Your task to perform on an android device: add a label to a message in the gmail app Image 0: 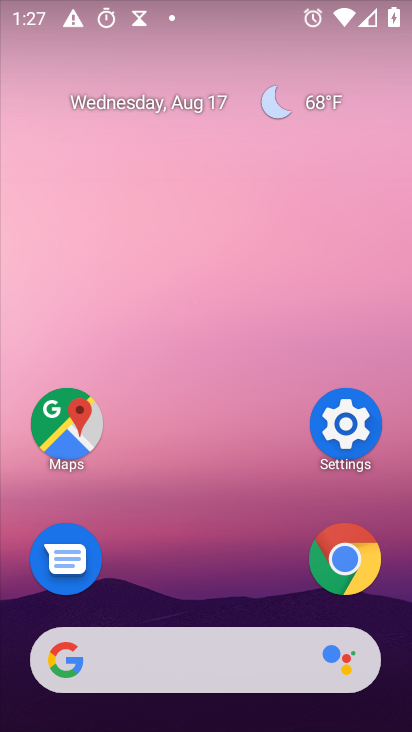
Step 0: drag from (211, 652) to (267, 208)
Your task to perform on an android device: add a label to a message in the gmail app Image 1: 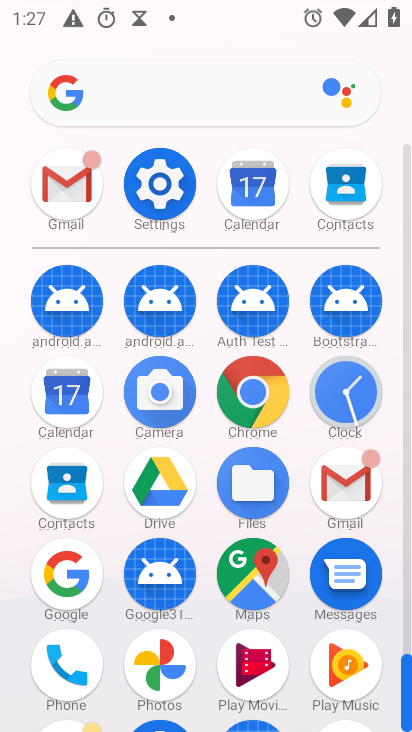
Step 1: click (66, 183)
Your task to perform on an android device: add a label to a message in the gmail app Image 2: 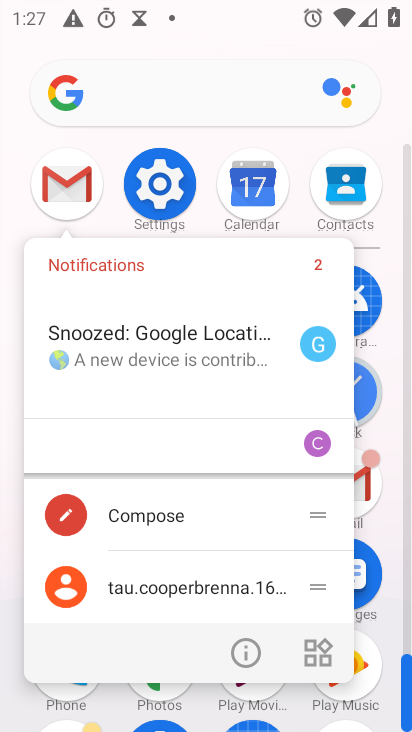
Step 2: click (71, 184)
Your task to perform on an android device: add a label to a message in the gmail app Image 3: 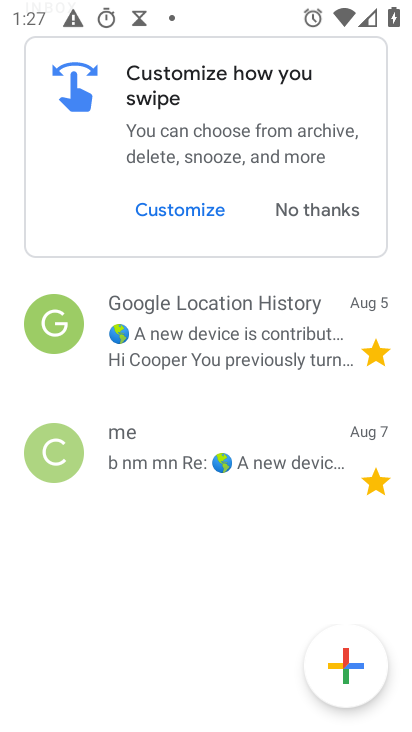
Step 3: click (164, 461)
Your task to perform on an android device: add a label to a message in the gmail app Image 4: 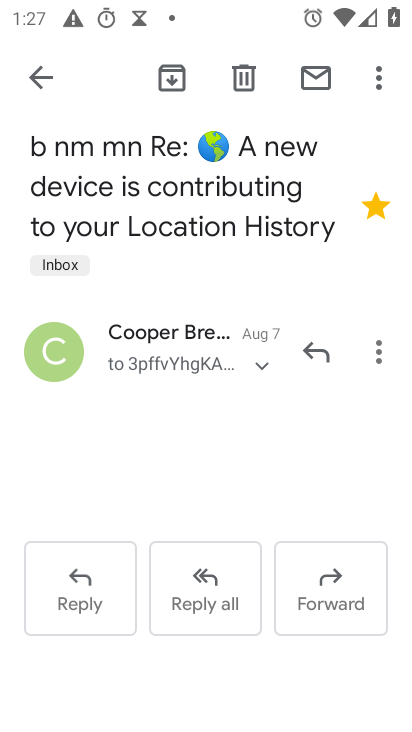
Step 4: click (67, 261)
Your task to perform on an android device: add a label to a message in the gmail app Image 5: 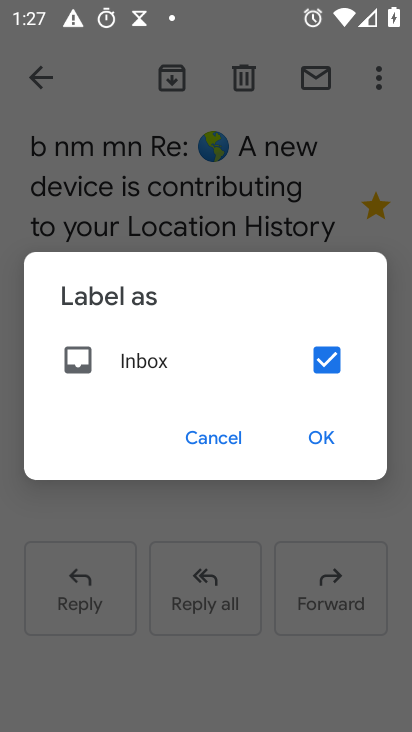
Step 5: click (326, 427)
Your task to perform on an android device: add a label to a message in the gmail app Image 6: 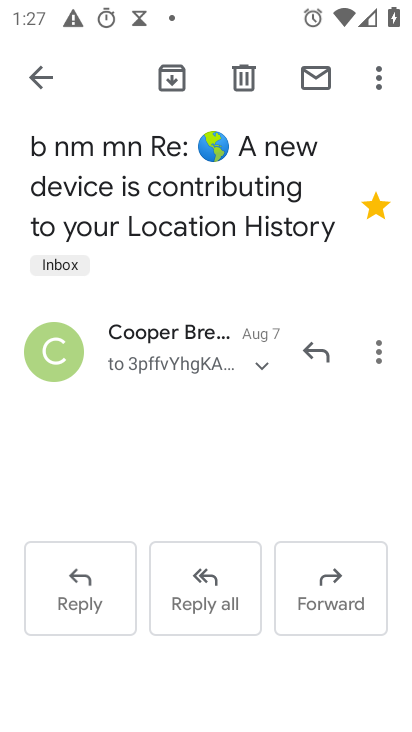
Step 6: task complete